Your task to perform on an android device: open app "Cash App" (install if not already installed) and go to login screen Image 0: 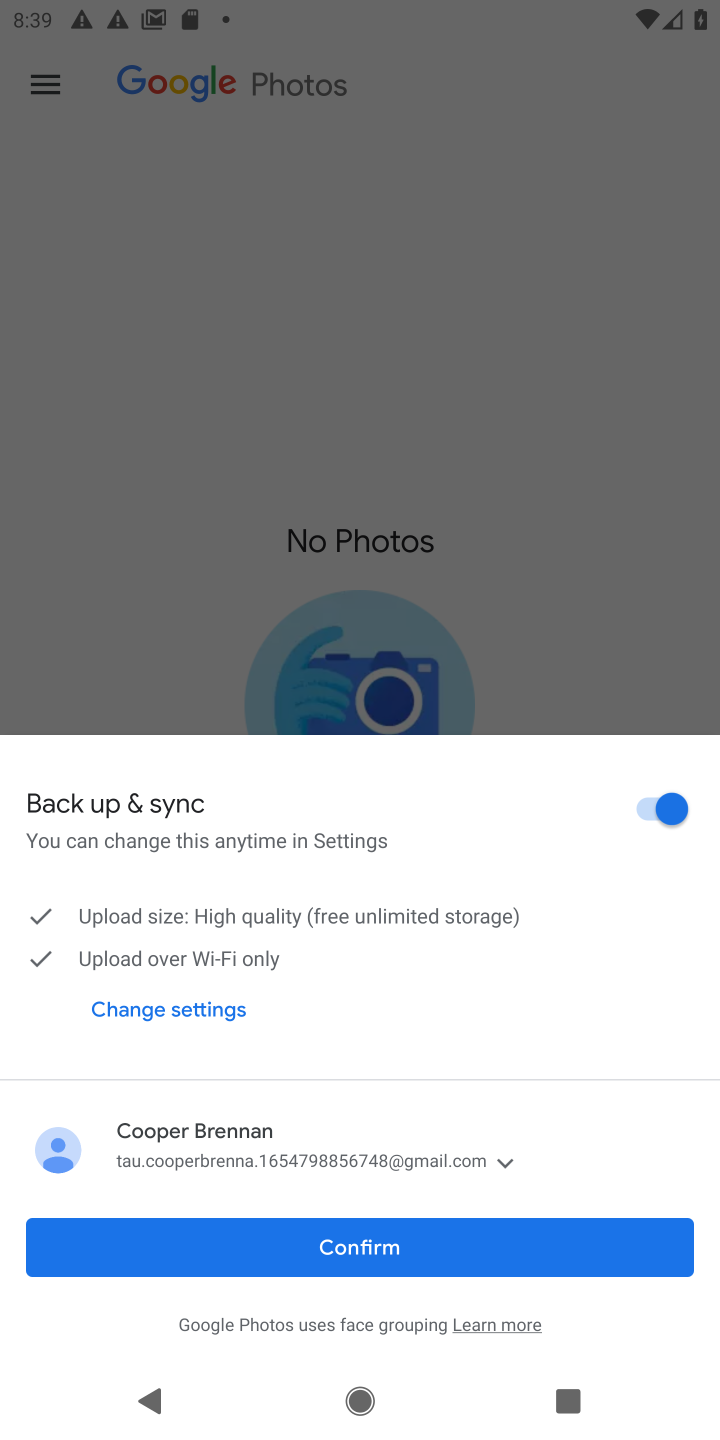
Step 0: press home button
Your task to perform on an android device: open app "Cash App" (install if not already installed) and go to login screen Image 1: 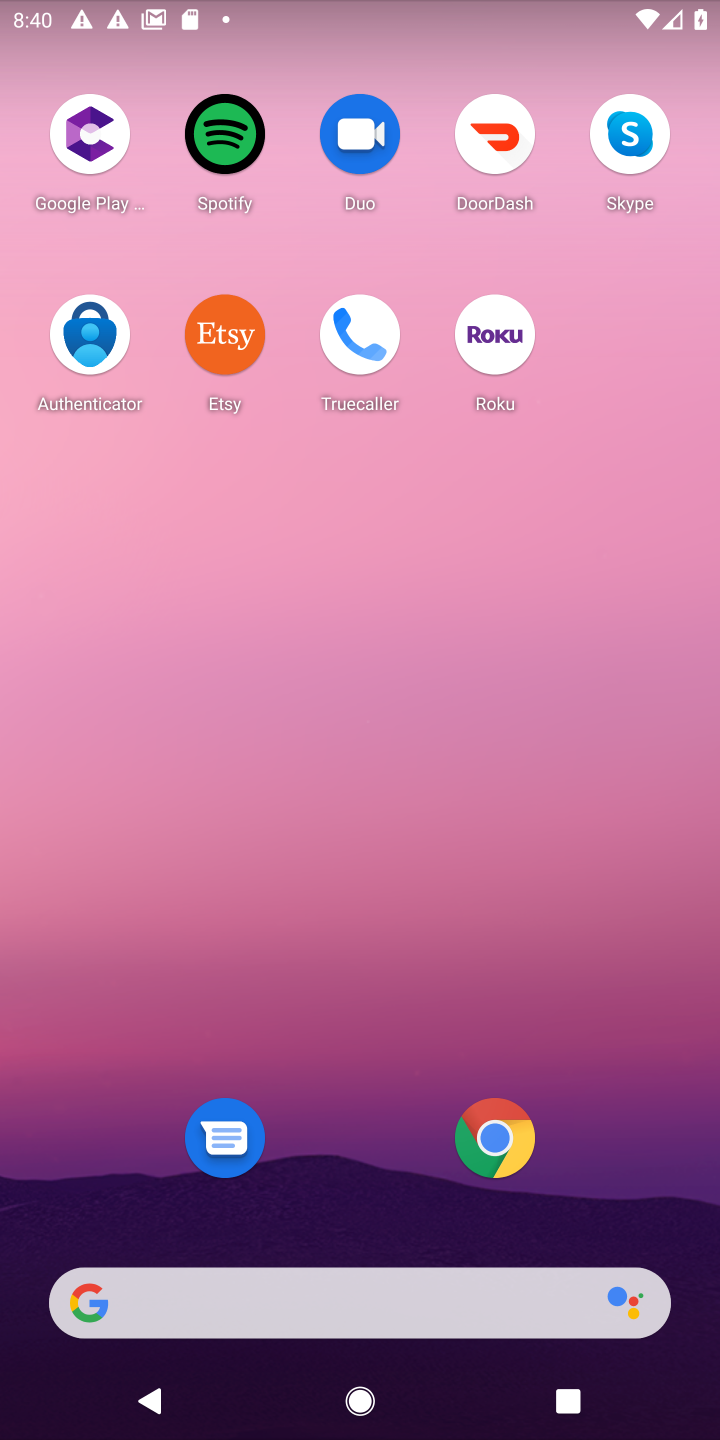
Step 1: drag from (327, 1228) to (514, 154)
Your task to perform on an android device: open app "Cash App" (install if not already installed) and go to login screen Image 2: 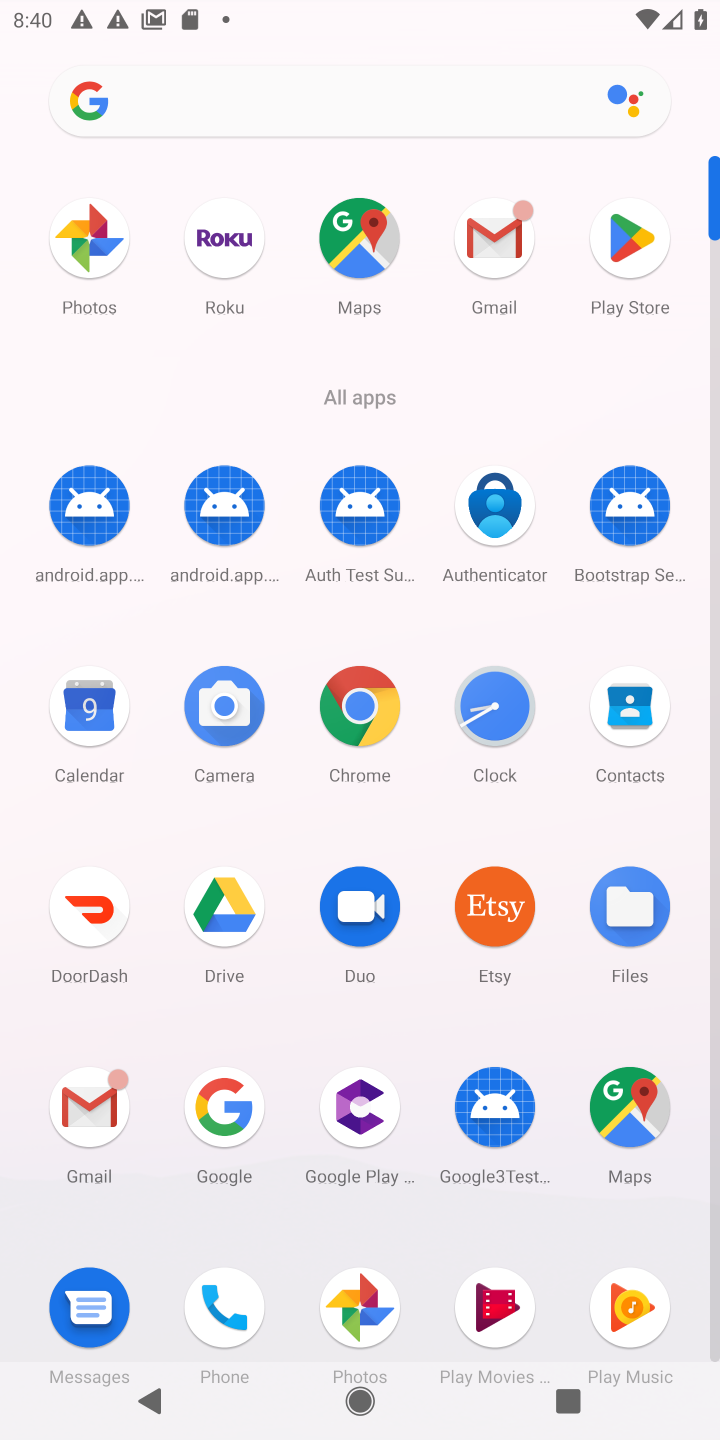
Step 2: click (635, 221)
Your task to perform on an android device: open app "Cash App" (install if not already installed) and go to login screen Image 3: 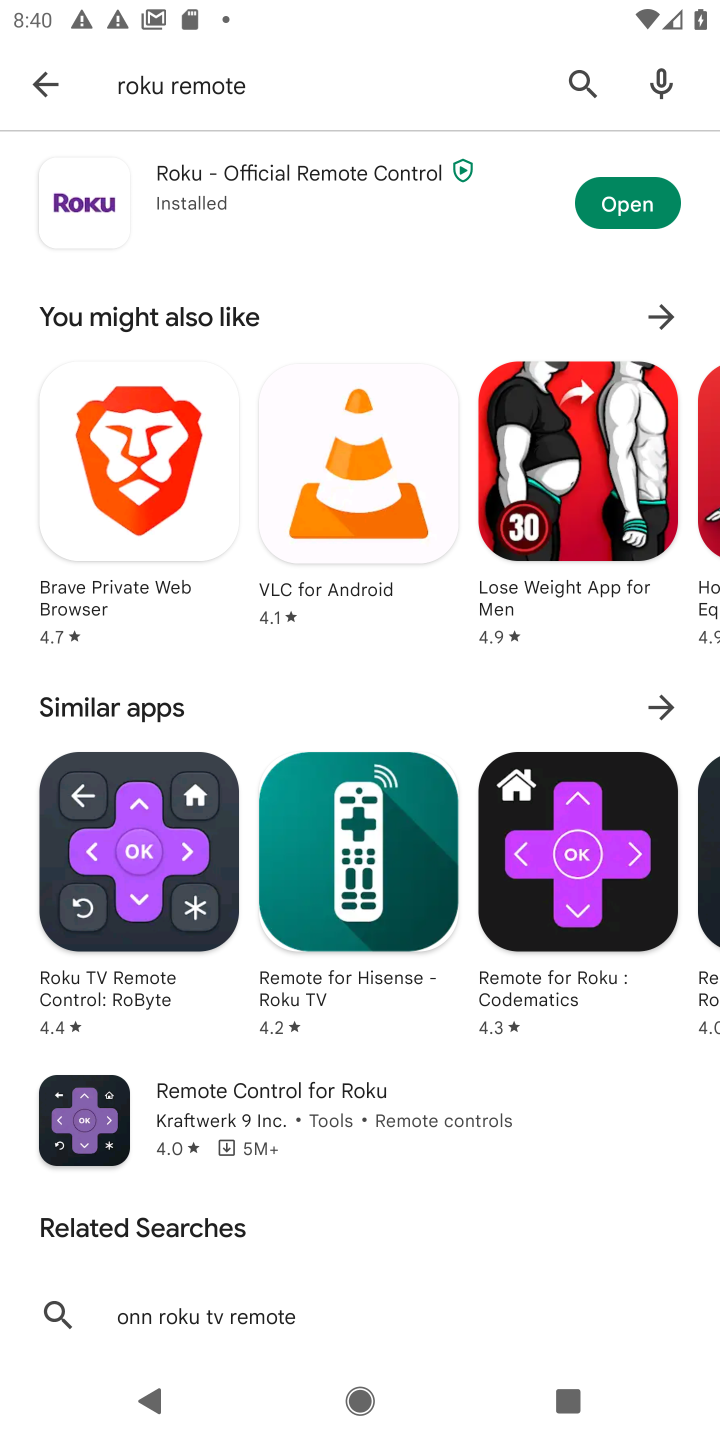
Step 3: click (558, 94)
Your task to perform on an android device: open app "Cash App" (install if not already installed) and go to login screen Image 4: 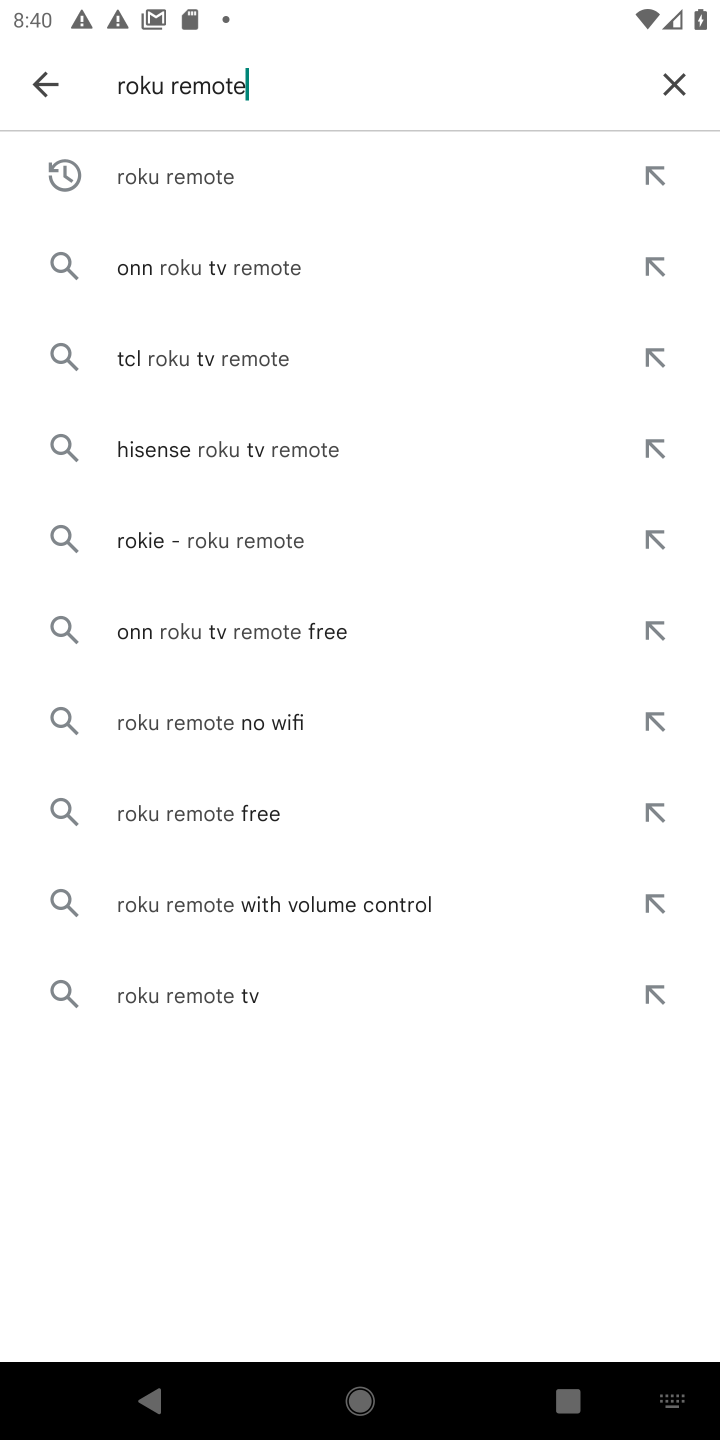
Step 4: click (686, 113)
Your task to perform on an android device: open app "Cash App" (install if not already installed) and go to login screen Image 5: 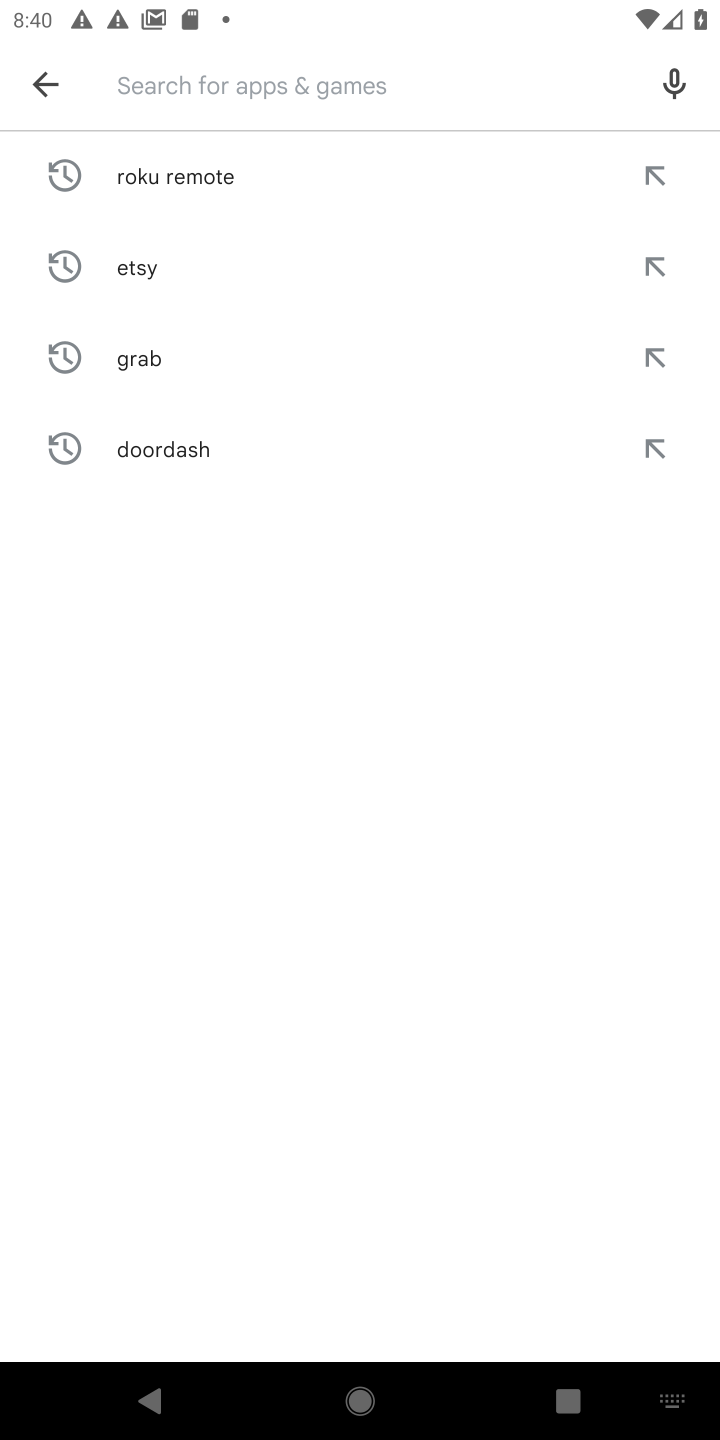
Step 5: type "cash app"
Your task to perform on an android device: open app "Cash App" (install if not already installed) and go to login screen Image 6: 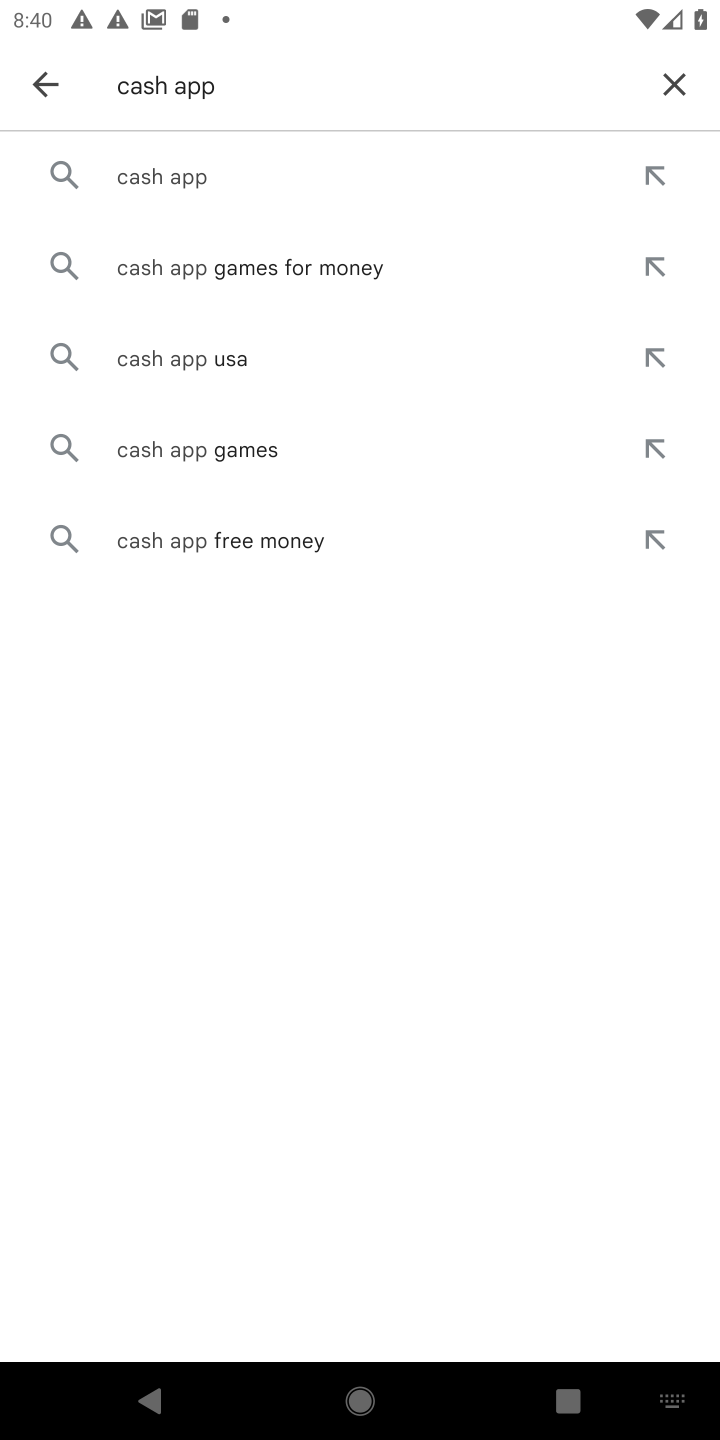
Step 6: click (230, 158)
Your task to perform on an android device: open app "Cash App" (install if not already installed) and go to login screen Image 7: 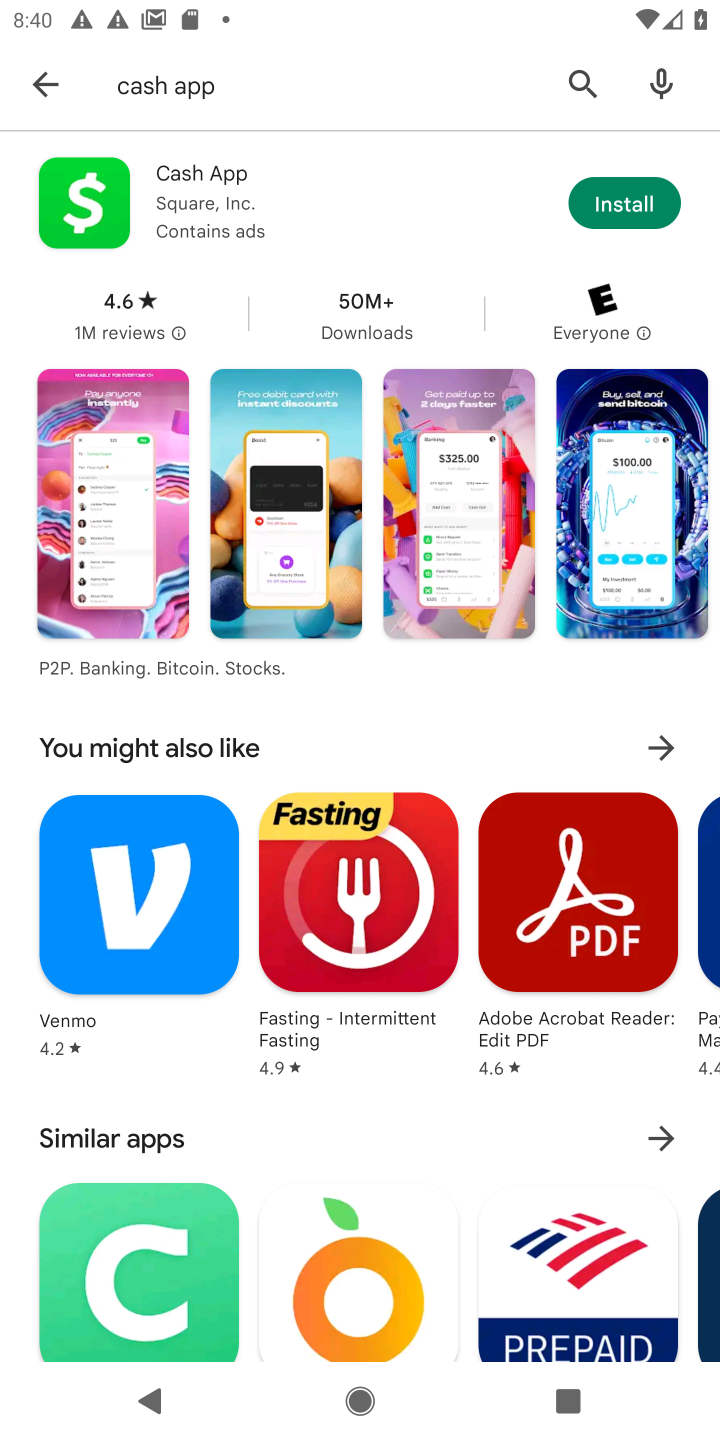
Step 7: click (634, 201)
Your task to perform on an android device: open app "Cash App" (install if not already installed) and go to login screen Image 8: 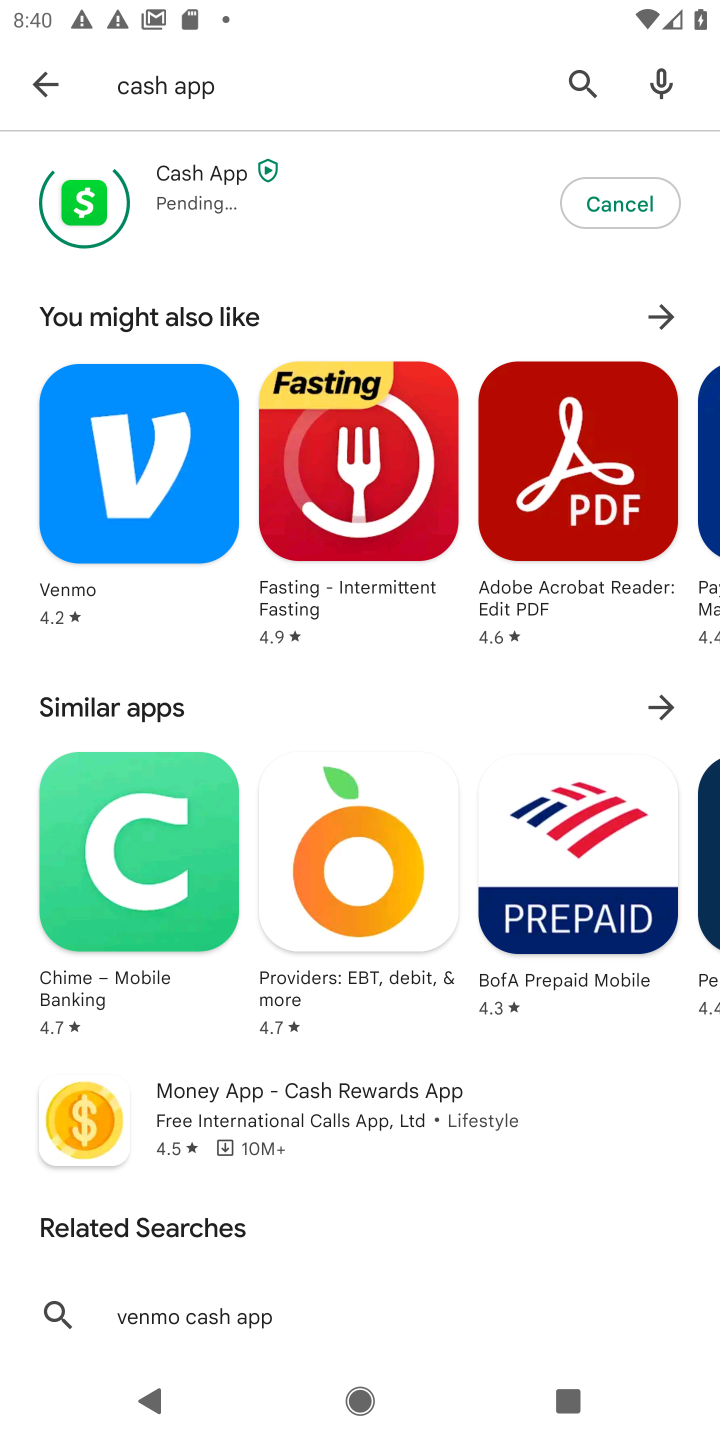
Step 8: task complete